Your task to perform on an android device: manage bookmarks in the chrome app Image 0: 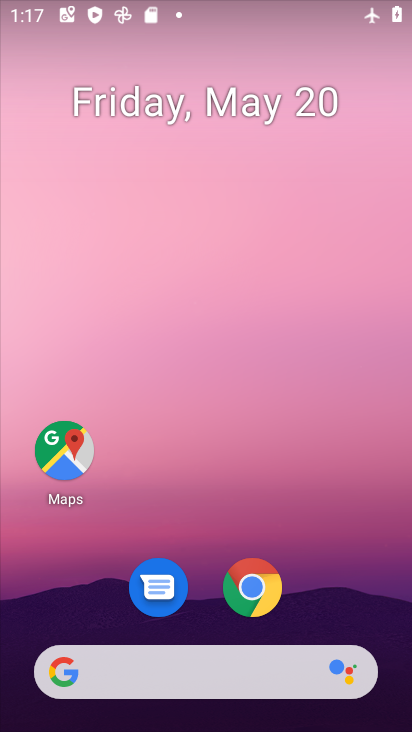
Step 0: click (253, 583)
Your task to perform on an android device: manage bookmarks in the chrome app Image 1: 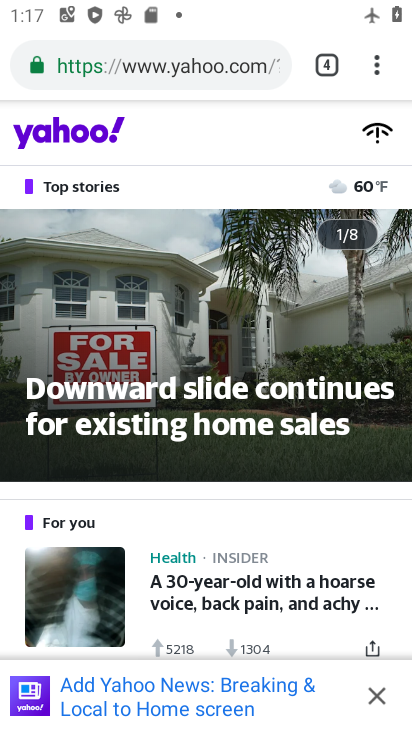
Step 1: click (373, 61)
Your task to perform on an android device: manage bookmarks in the chrome app Image 2: 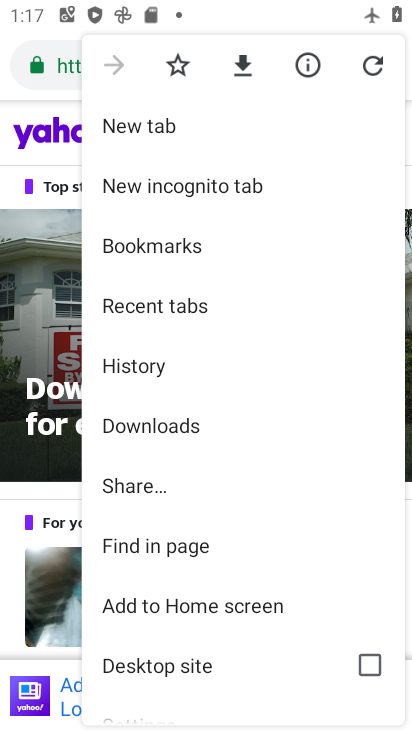
Step 2: click (159, 242)
Your task to perform on an android device: manage bookmarks in the chrome app Image 3: 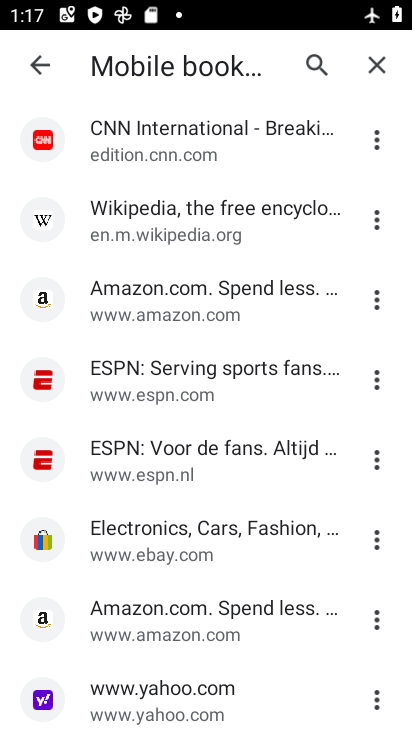
Step 3: click (373, 215)
Your task to perform on an android device: manage bookmarks in the chrome app Image 4: 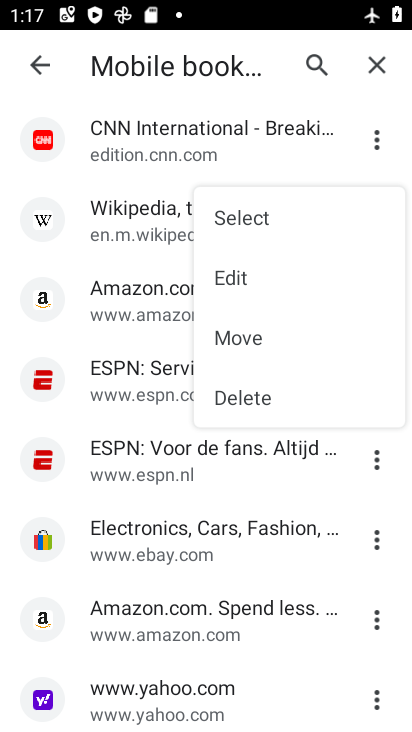
Step 4: click (232, 272)
Your task to perform on an android device: manage bookmarks in the chrome app Image 5: 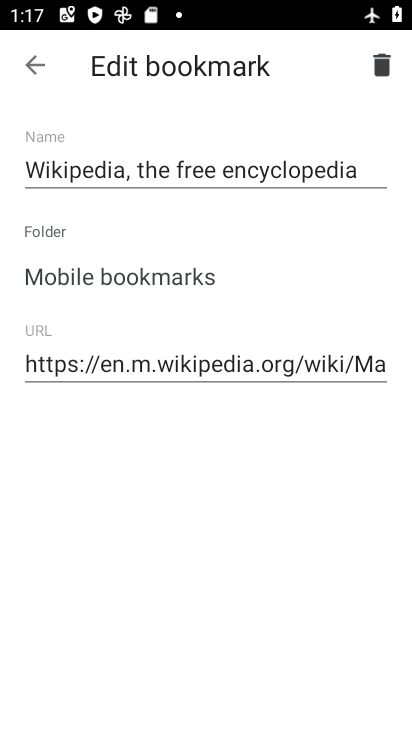
Step 5: task complete